Your task to perform on an android device: clear all cookies in the chrome app Image 0: 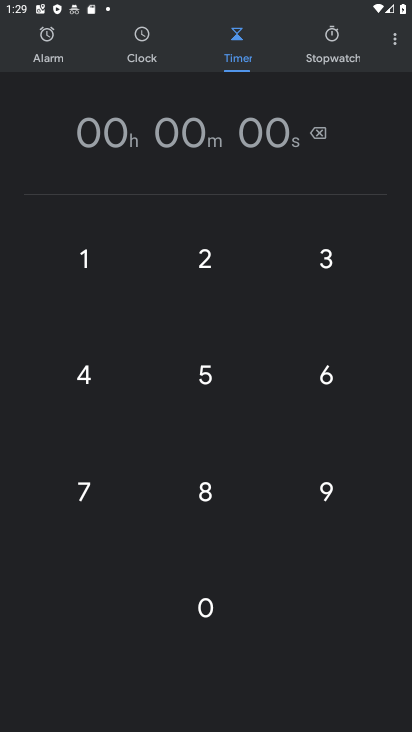
Step 0: press home button
Your task to perform on an android device: clear all cookies in the chrome app Image 1: 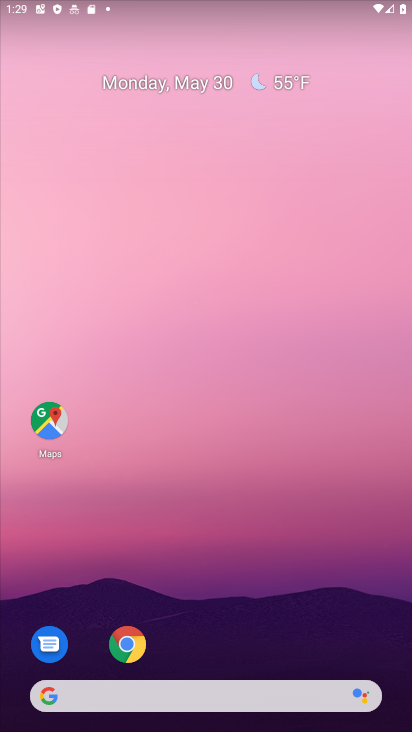
Step 1: click (141, 628)
Your task to perform on an android device: clear all cookies in the chrome app Image 2: 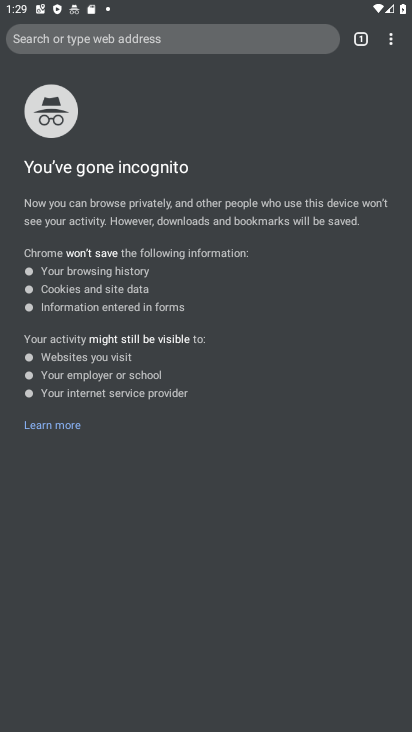
Step 2: click (396, 45)
Your task to perform on an android device: clear all cookies in the chrome app Image 3: 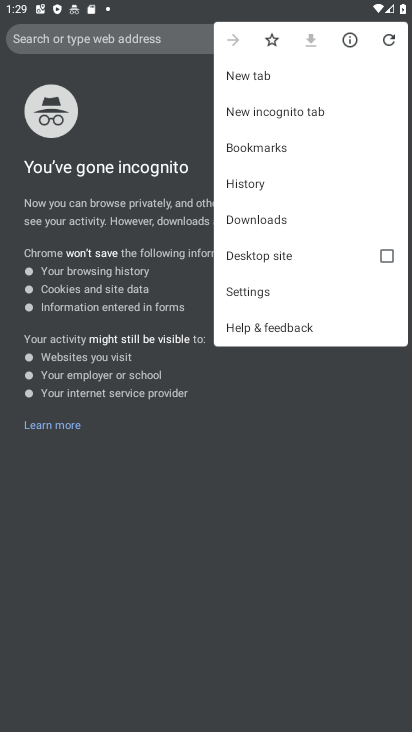
Step 3: click (282, 285)
Your task to perform on an android device: clear all cookies in the chrome app Image 4: 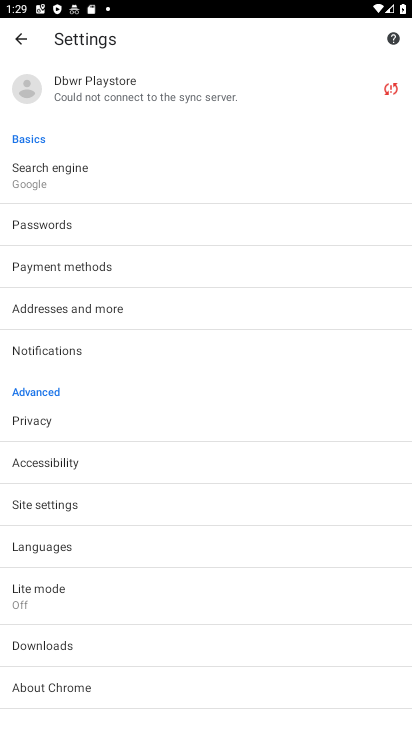
Step 4: task complete